Your task to perform on an android device: Turn off the flashlight Image 0: 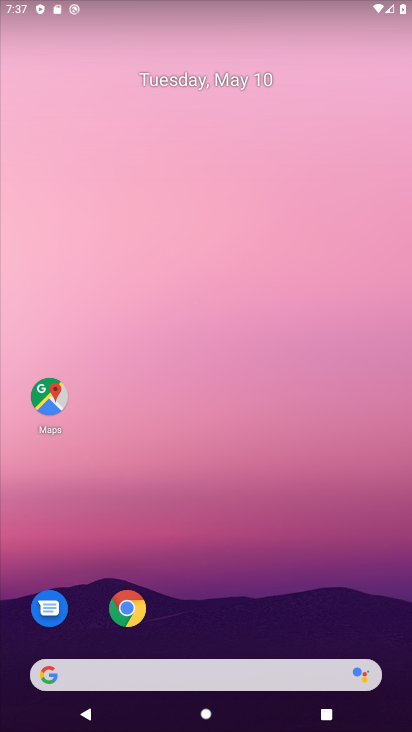
Step 0: drag from (313, 528) to (300, 276)
Your task to perform on an android device: Turn off the flashlight Image 1: 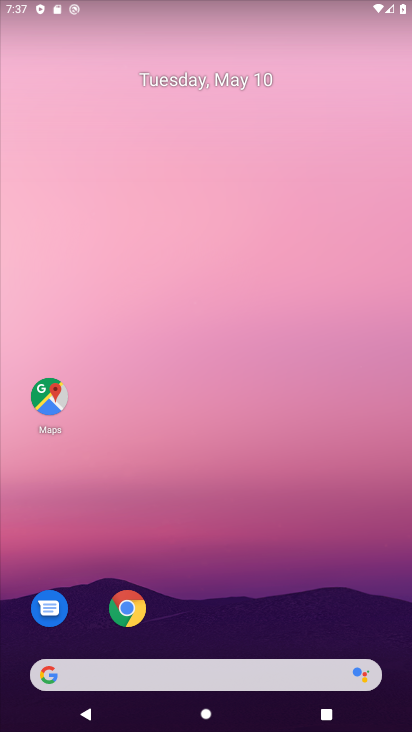
Step 1: drag from (250, 533) to (270, 309)
Your task to perform on an android device: Turn off the flashlight Image 2: 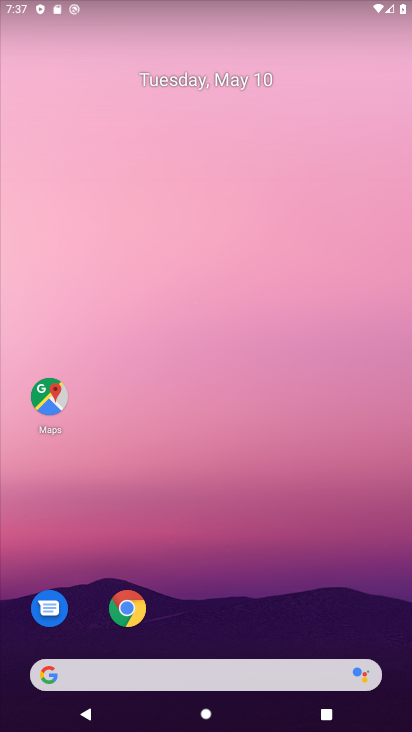
Step 2: drag from (219, 633) to (263, 232)
Your task to perform on an android device: Turn off the flashlight Image 3: 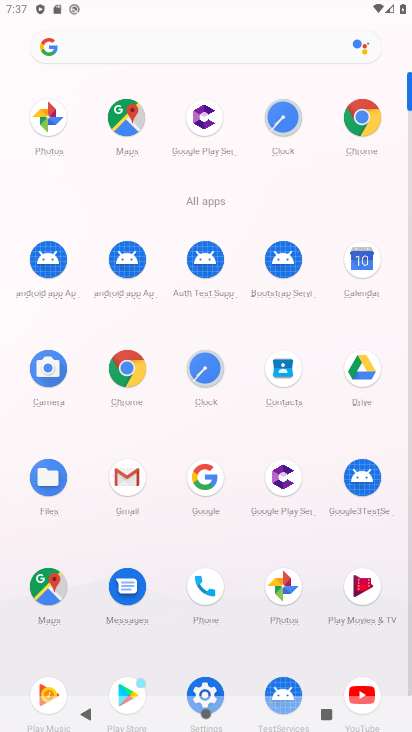
Step 3: drag from (196, 650) to (245, 242)
Your task to perform on an android device: Turn off the flashlight Image 4: 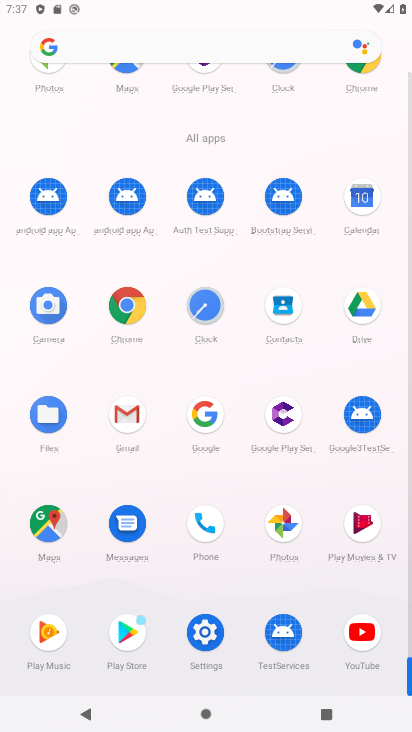
Step 4: click (195, 614)
Your task to perform on an android device: Turn off the flashlight Image 5: 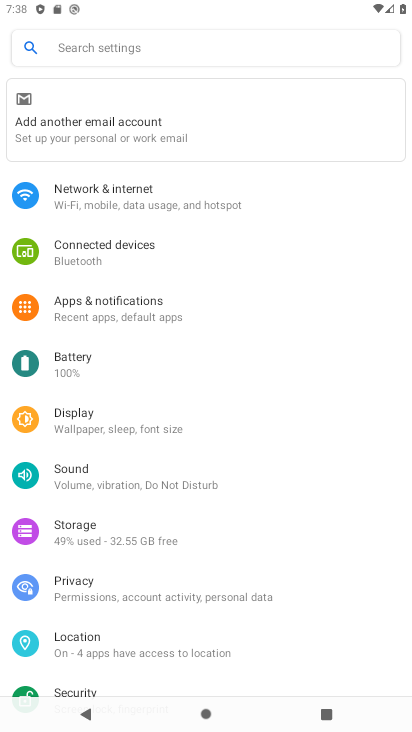
Step 5: task complete